Your task to perform on an android device: Open Yahoo.com Image 0: 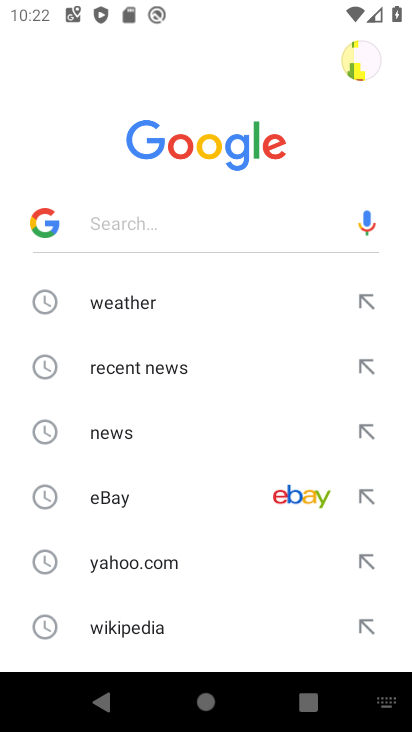
Step 0: click (175, 564)
Your task to perform on an android device: Open Yahoo.com Image 1: 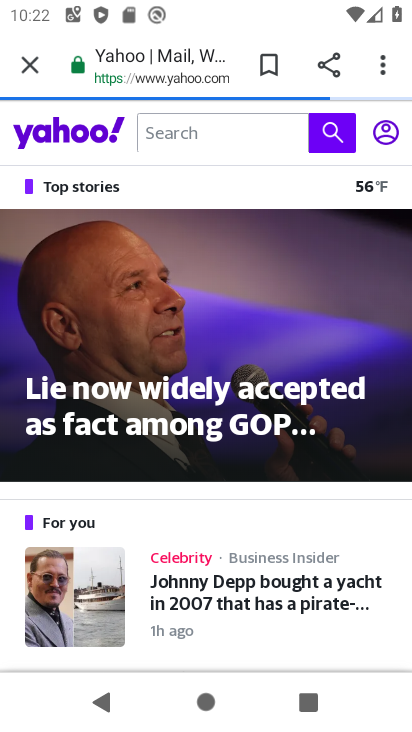
Step 1: task complete